Your task to perform on an android device: Open wifi settings Image 0: 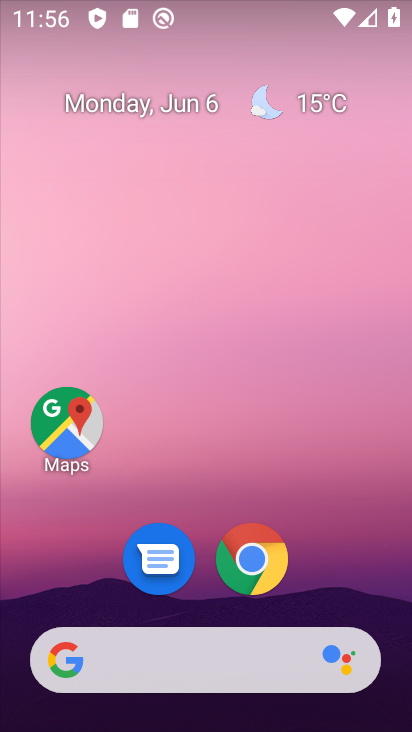
Step 0: drag from (346, 481) to (344, 14)
Your task to perform on an android device: Open wifi settings Image 1: 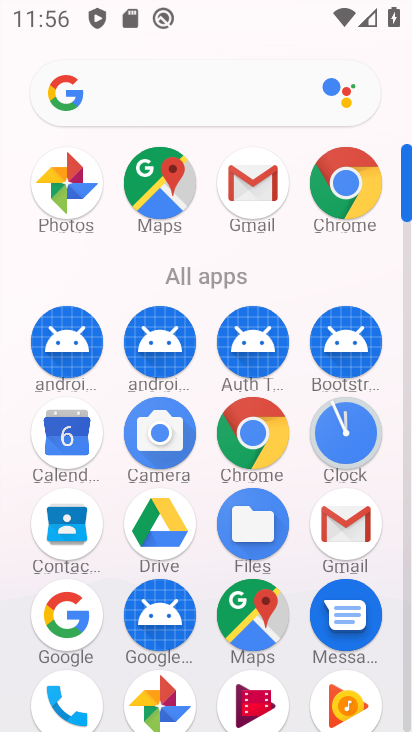
Step 1: drag from (325, 536) to (295, 65)
Your task to perform on an android device: Open wifi settings Image 2: 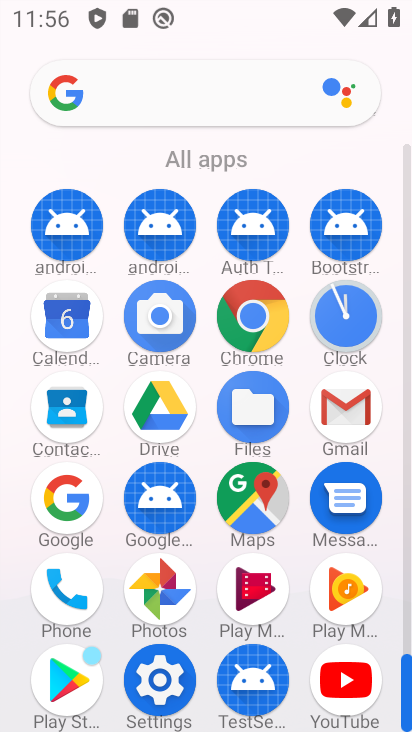
Step 2: click (147, 670)
Your task to perform on an android device: Open wifi settings Image 3: 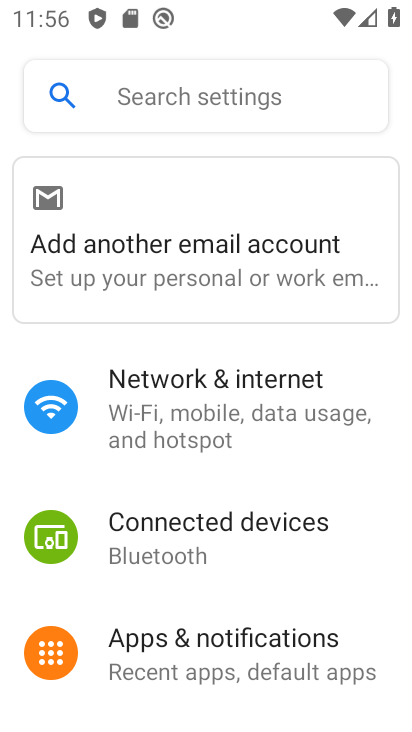
Step 3: click (210, 399)
Your task to perform on an android device: Open wifi settings Image 4: 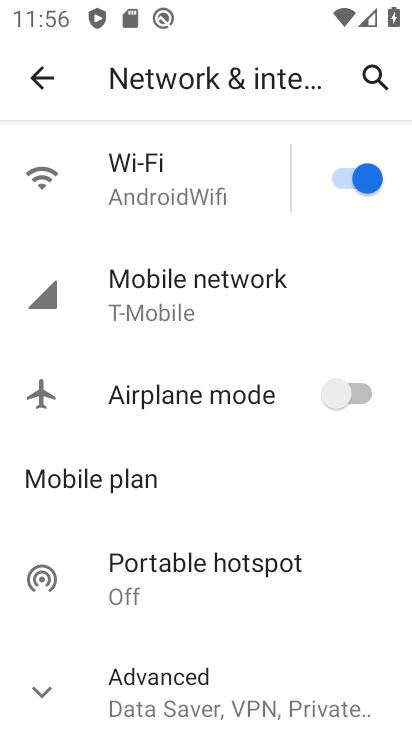
Step 4: drag from (235, 588) to (238, 97)
Your task to perform on an android device: Open wifi settings Image 5: 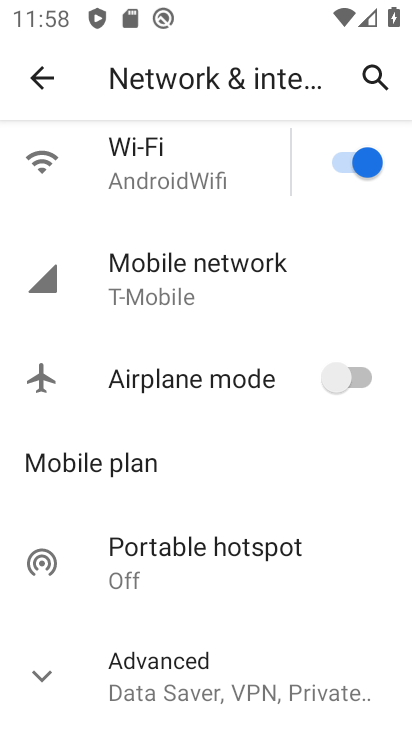
Step 5: click (173, 148)
Your task to perform on an android device: Open wifi settings Image 6: 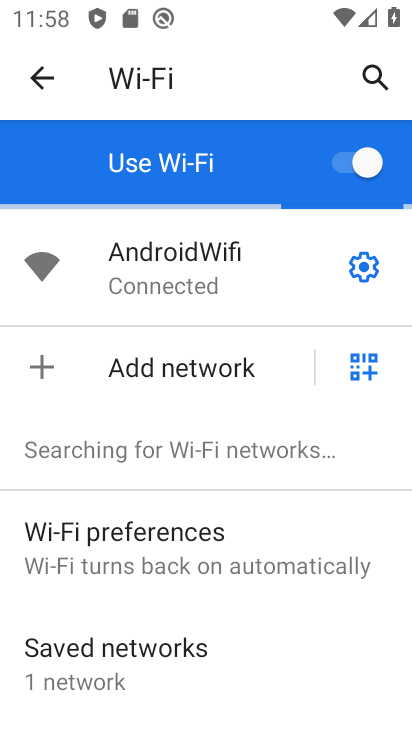
Step 6: task complete